Your task to perform on an android device: turn on javascript in the chrome app Image 0: 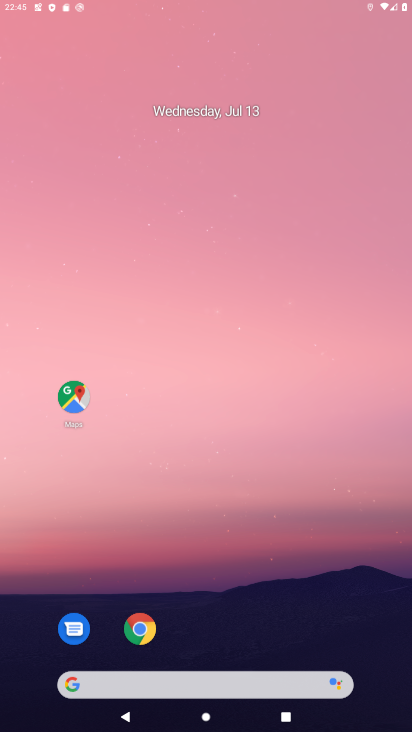
Step 0: press home button
Your task to perform on an android device: turn on javascript in the chrome app Image 1: 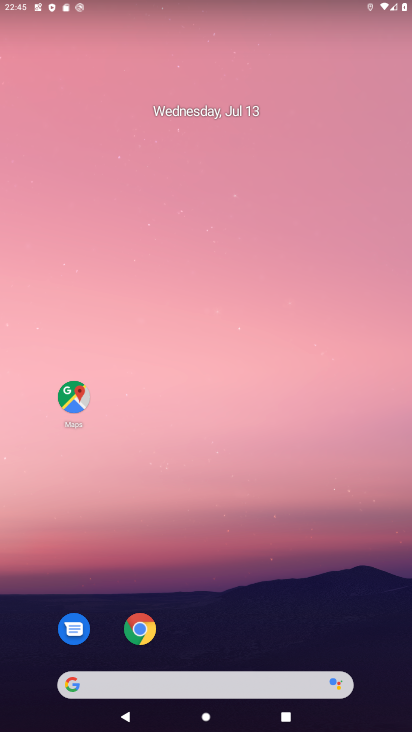
Step 1: click (142, 624)
Your task to perform on an android device: turn on javascript in the chrome app Image 2: 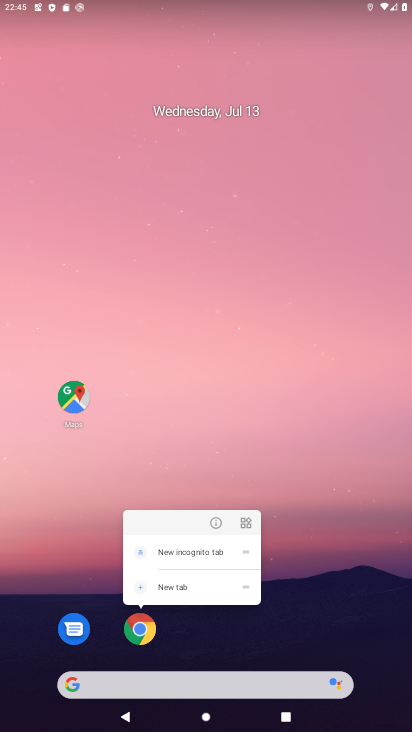
Step 2: click (141, 629)
Your task to perform on an android device: turn on javascript in the chrome app Image 3: 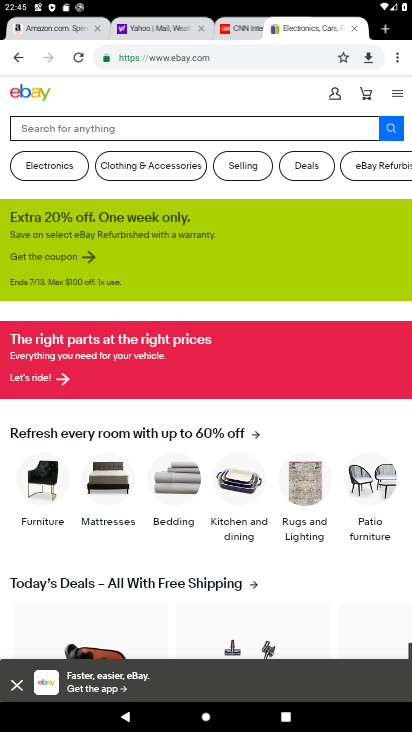
Step 3: click (394, 54)
Your task to perform on an android device: turn on javascript in the chrome app Image 4: 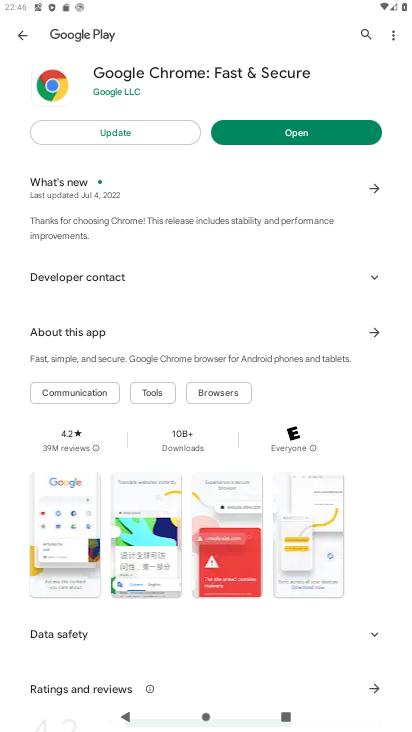
Step 4: click (24, 29)
Your task to perform on an android device: turn on javascript in the chrome app Image 5: 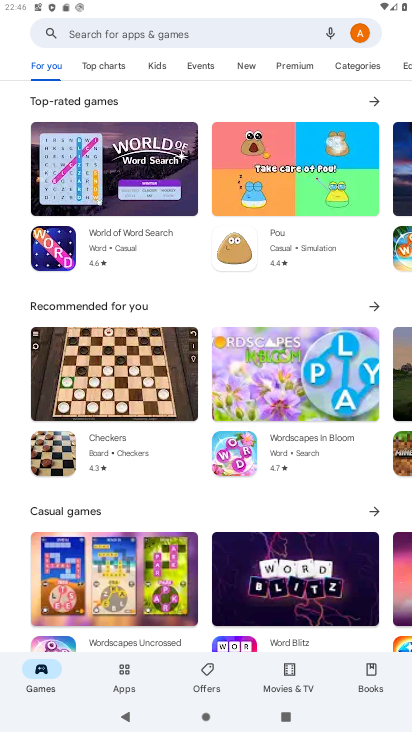
Step 5: press back button
Your task to perform on an android device: turn on javascript in the chrome app Image 6: 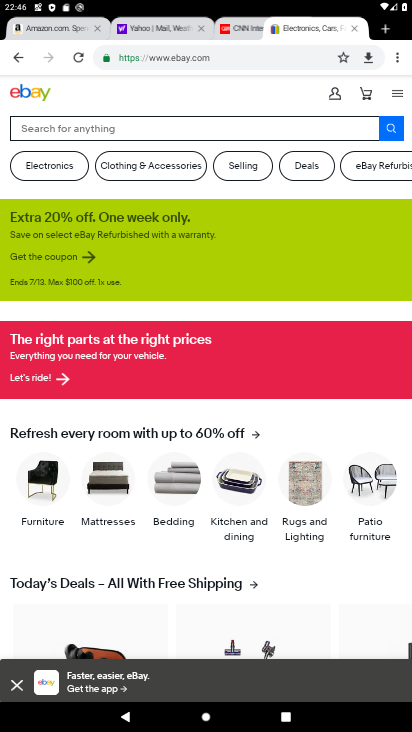
Step 6: click (397, 57)
Your task to perform on an android device: turn on javascript in the chrome app Image 7: 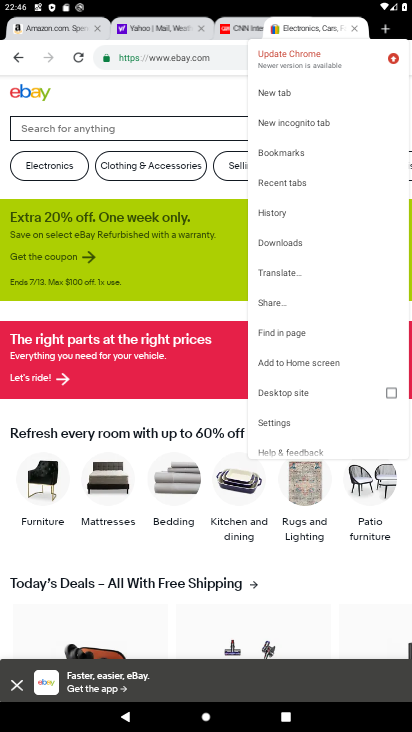
Step 7: click (291, 421)
Your task to perform on an android device: turn on javascript in the chrome app Image 8: 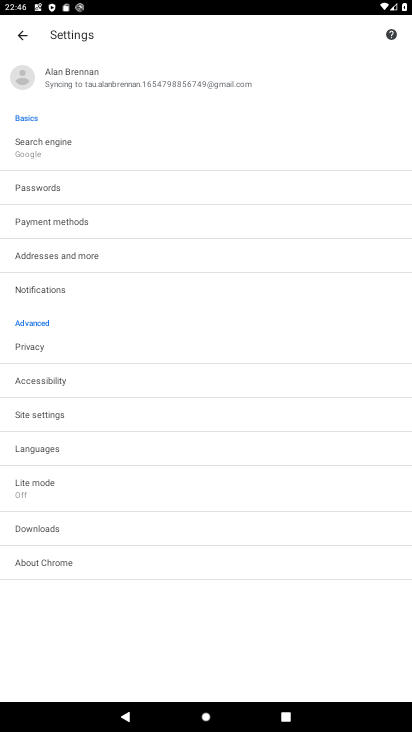
Step 8: click (71, 410)
Your task to perform on an android device: turn on javascript in the chrome app Image 9: 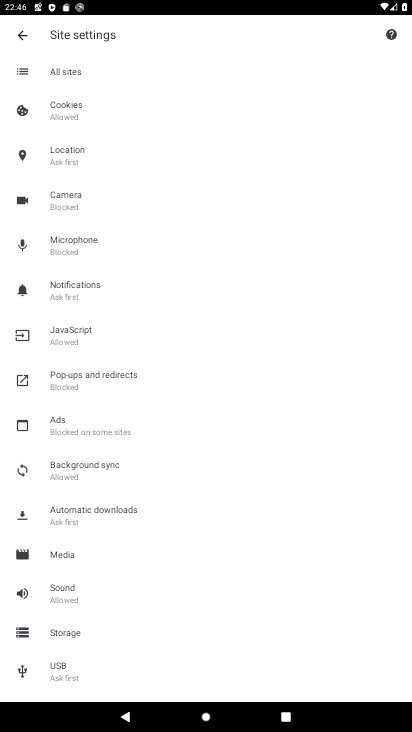
Step 9: click (100, 331)
Your task to perform on an android device: turn on javascript in the chrome app Image 10: 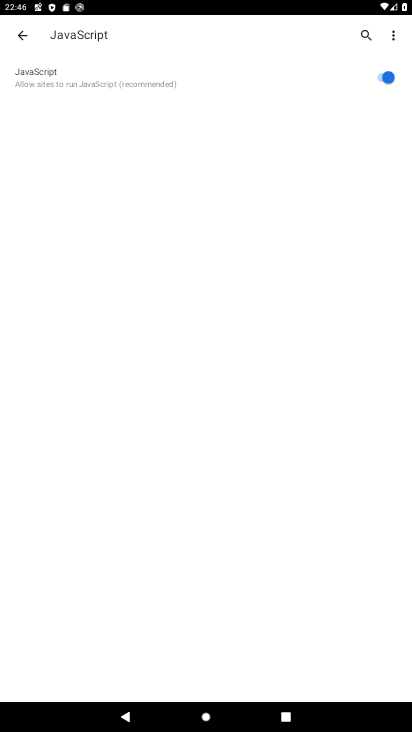
Step 10: task complete